Your task to perform on an android device: clear all cookies in the chrome app Image 0: 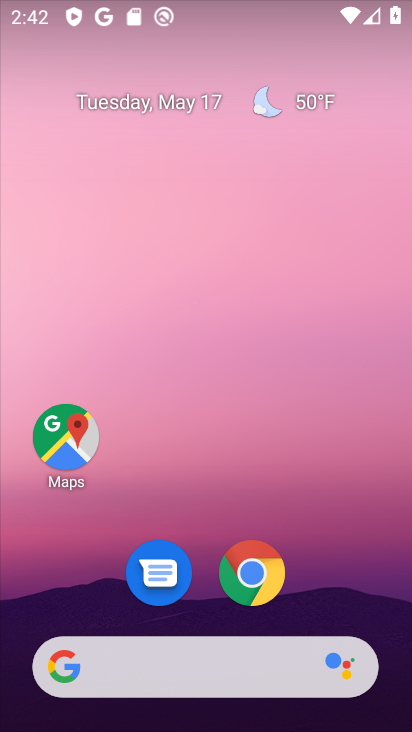
Step 0: click (257, 566)
Your task to perform on an android device: clear all cookies in the chrome app Image 1: 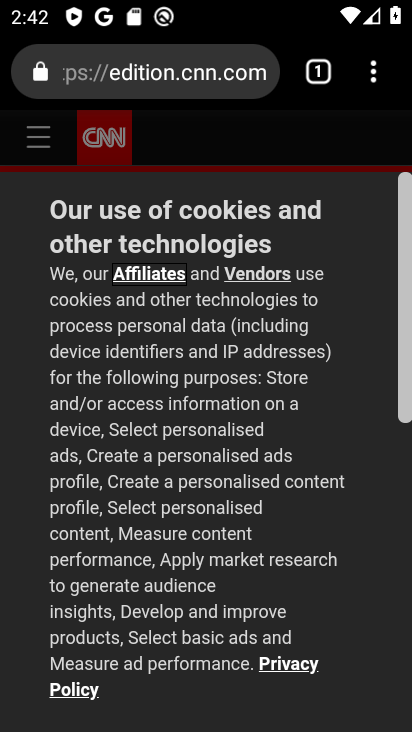
Step 1: drag from (384, 63) to (228, 554)
Your task to perform on an android device: clear all cookies in the chrome app Image 2: 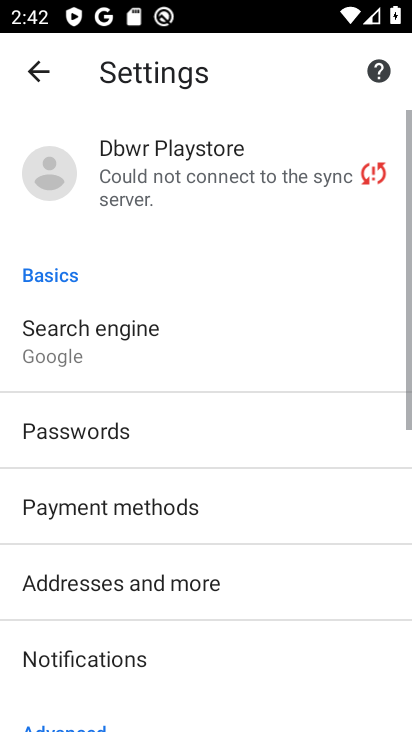
Step 2: drag from (159, 592) to (305, 153)
Your task to perform on an android device: clear all cookies in the chrome app Image 3: 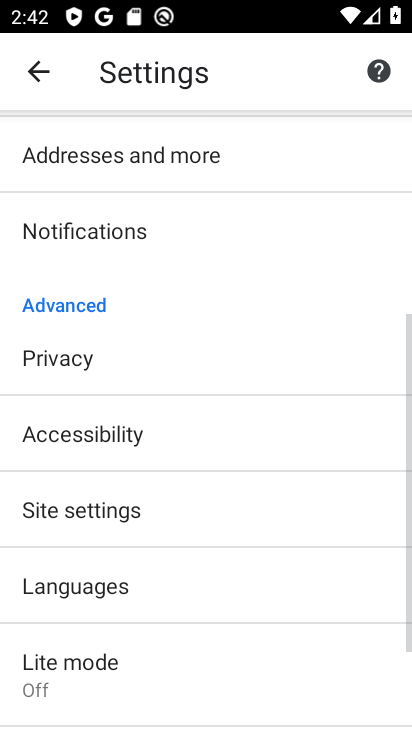
Step 3: drag from (39, 55) to (258, 615)
Your task to perform on an android device: clear all cookies in the chrome app Image 4: 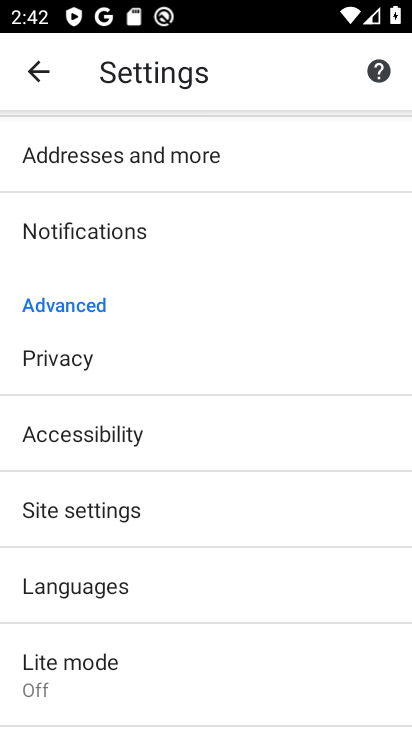
Step 4: click (47, 72)
Your task to perform on an android device: clear all cookies in the chrome app Image 5: 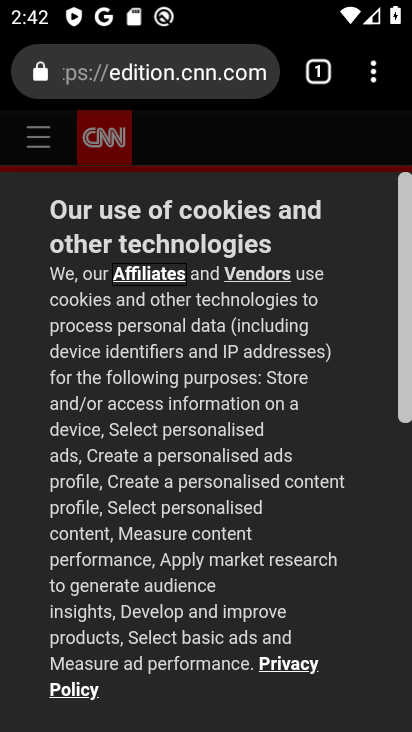
Step 5: drag from (368, 76) to (180, 391)
Your task to perform on an android device: clear all cookies in the chrome app Image 6: 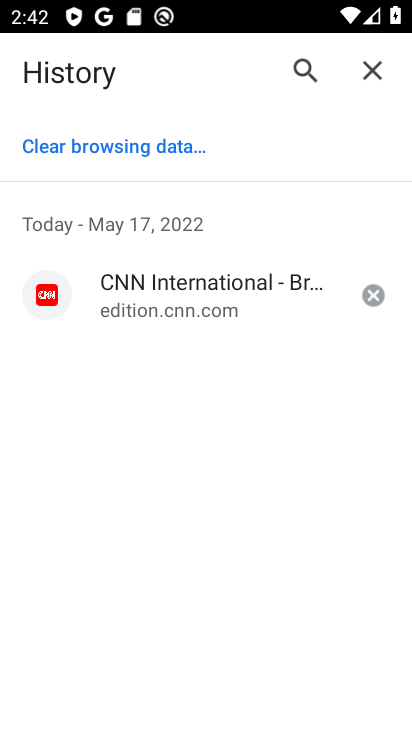
Step 6: click (156, 140)
Your task to perform on an android device: clear all cookies in the chrome app Image 7: 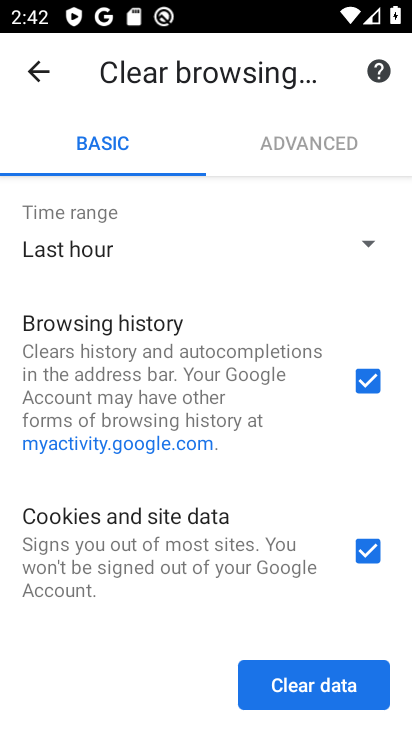
Step 7: drag from (224, 459) to (277, 241)
Your task to perform on an android device: clear all cookies in the chrome app Image 8: 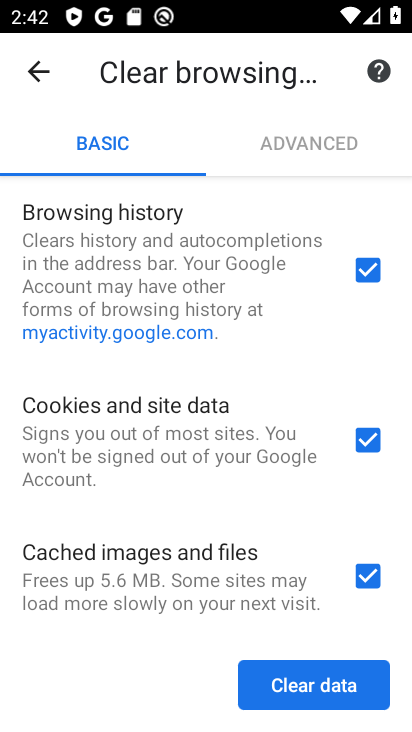
Step 8: click (300, 671)
Your task to perform on an android device: clear all cookies in the chrome app Image 9: 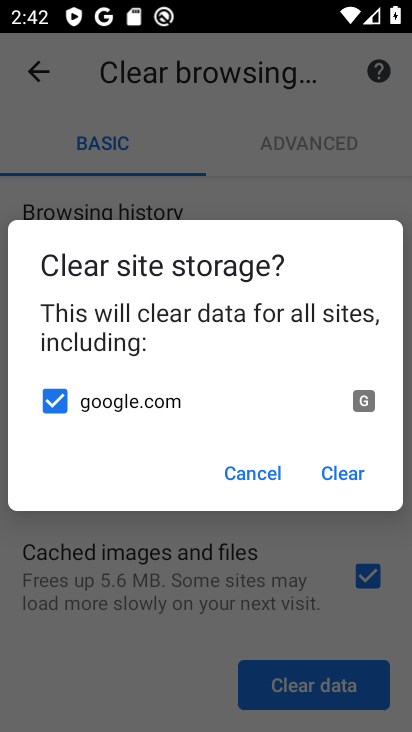
Step 9: click (332, 478)
Your task to perform on an android device: clear all cookies in the chrome app Image 10: 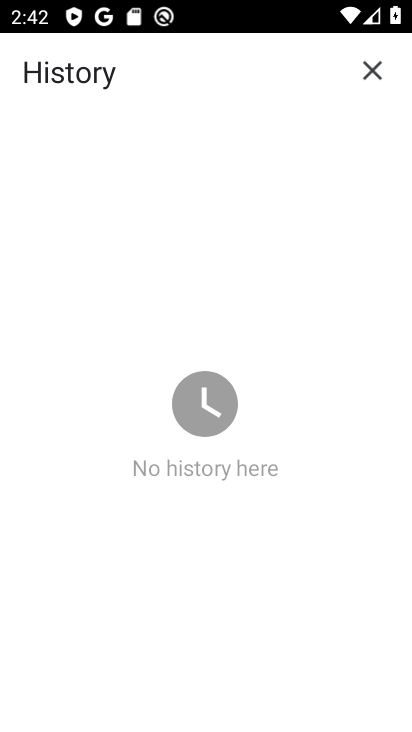
Step 10: task complete